Your task to perform on an android device: turn on data saver in the chrome app Image 0: 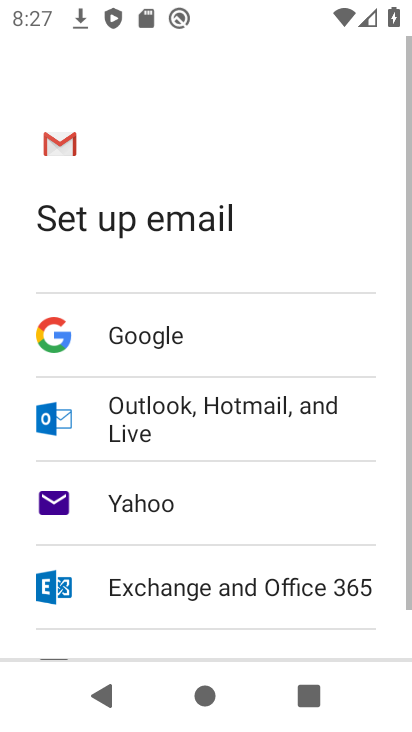
Step 0: press home button
Your task to perform on an android device: turn on data saver in the chrome app Image 1: 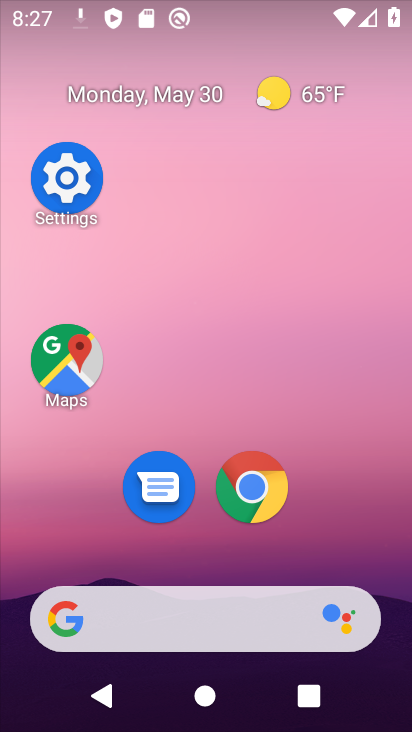
Step 1: click (60, 383)
Your task to perform on an android device: turn on data saver in the chrome app Image 2: 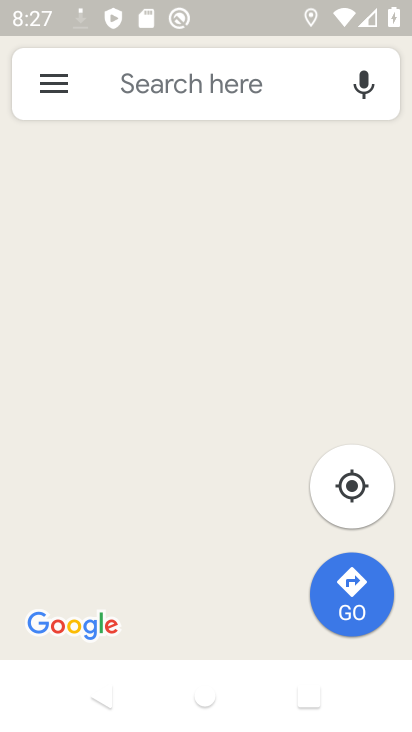
Step 2: click (277, 87)
Your task to perform on an android device: turn on data saver in the chrome app Image 3: 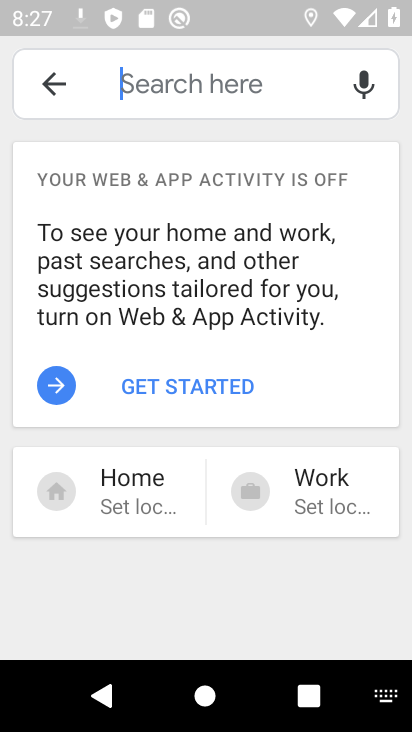
Step 3: click (160, 379)
Your task to perform on an android device: turn on data saver in the chrome app Image 4: 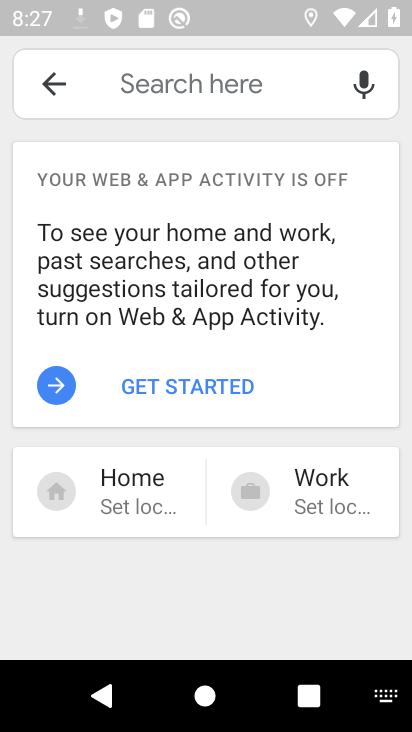
Step 4: click (215, 385)
Your task to perform on an android device: turn on data saver in the chrome app Image 5: 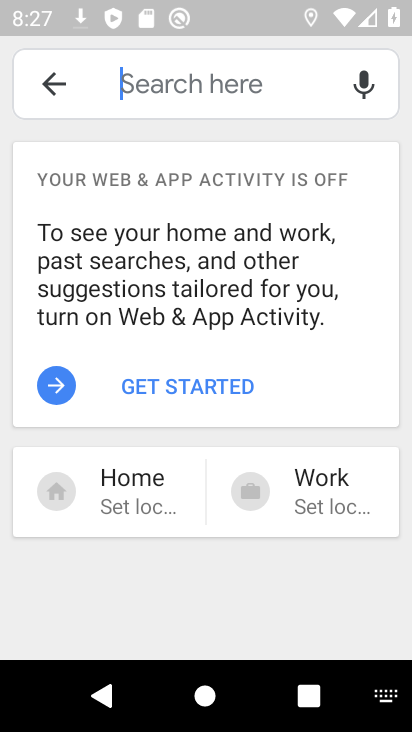
Step 5: press back button
Your task to perform on an android device: turn on data saver in the chrome app Image 6: 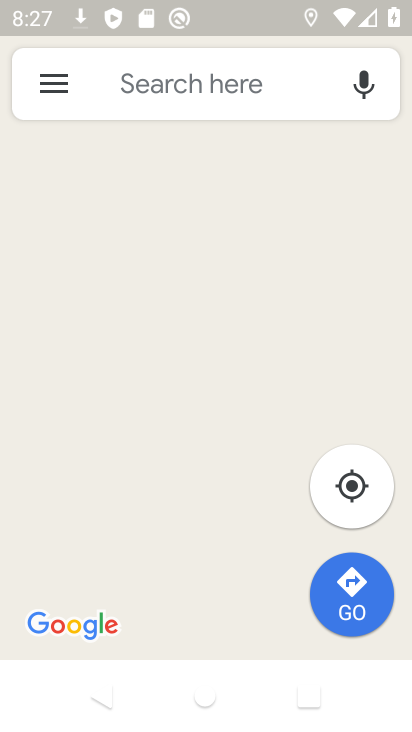
Step 6: press home button
Your task to perform on an android device: turn on data saver in the chrome app Image 7: 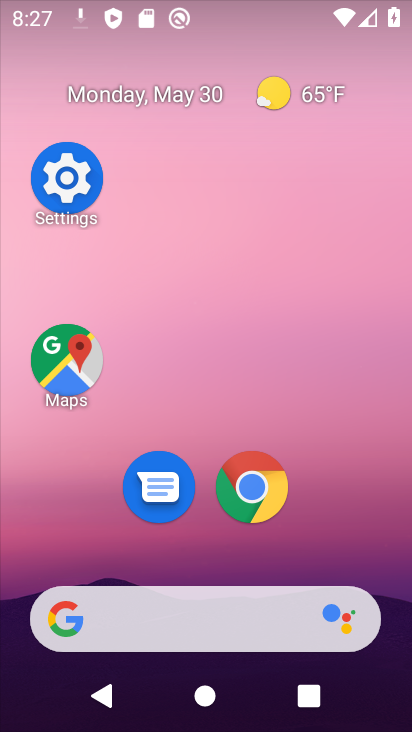
Step 7: click (267, 518)
Your task to perform on an android device: turn on data saver in the chrome app Image 8: 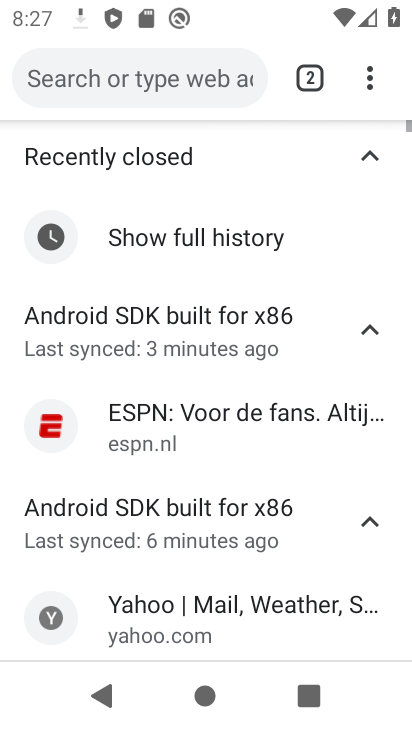
Step 8: click (367, 83)
Your task to perform on an android device: turn on data saver in the chrome app Image 9: 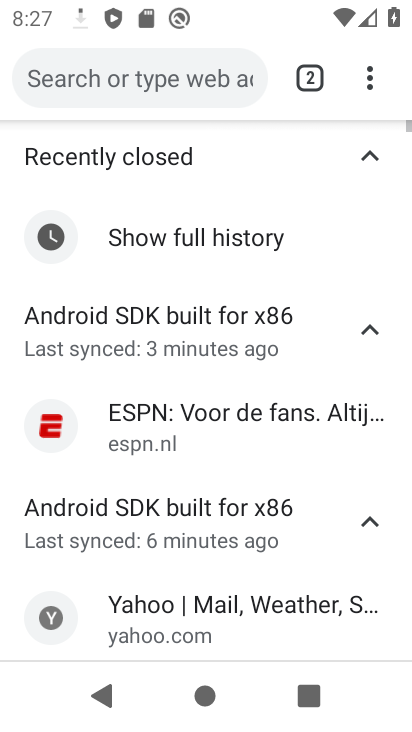
Step 9: click (363, 80)
Your task to perform on an android device: turn on data saver in the chrome app Image 10: 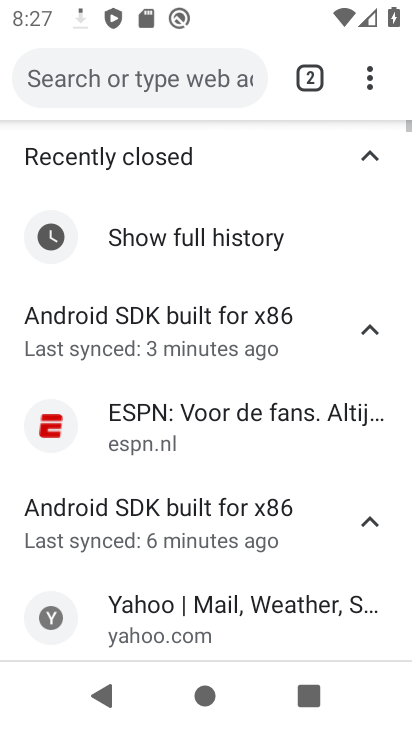
Step 10: click (367, 71)
Your task to perform on an android device: turn on data saver in the chrome app Image 11: 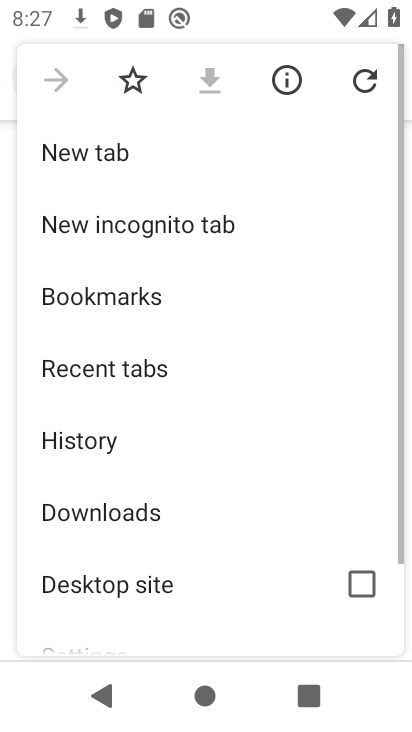
Step 11: drag from (231, 534) to (274, 75)
Your task to perform on an android device: turn on data saver in the chrome app Image 12: 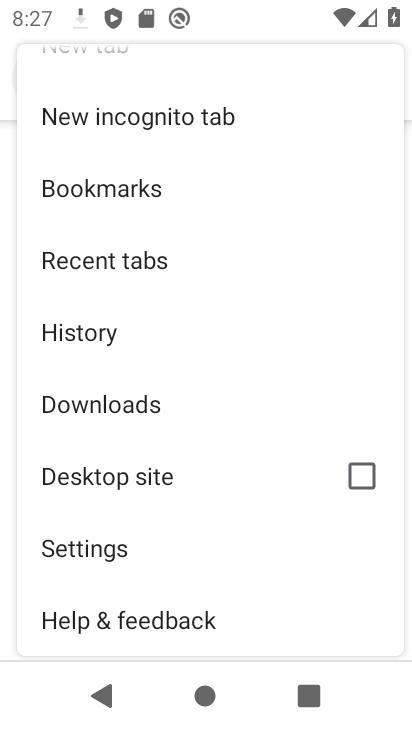
Step 12: click (124, 552)
Your task to perform on an android device: turn on data saver in the chrome app Image 13: 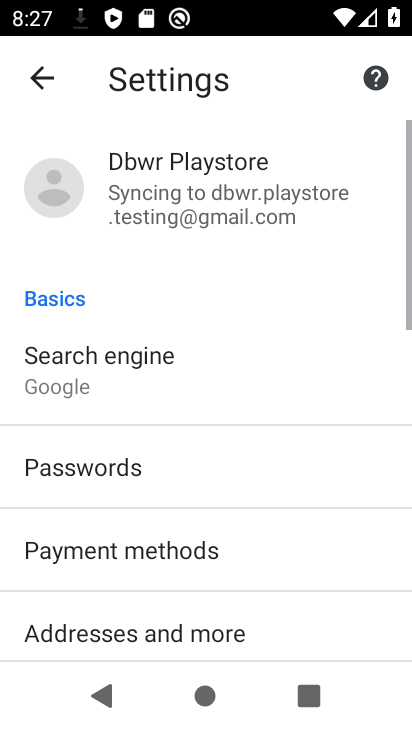
Step 13: drag from (124, 552) to (184, 293)
Your task to perform on an android device: turn on data saver in the chrome app Image 14: 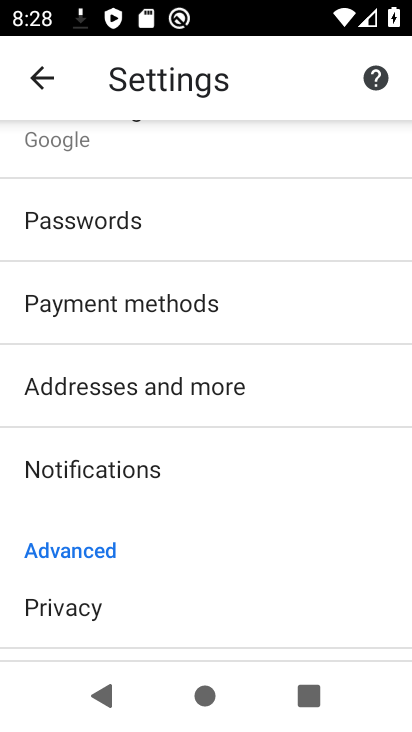
Step 14: drag from (178, 574) to (177, 183)
Your task to perform on an android device: turn on data saver in the chrome app Image 15: 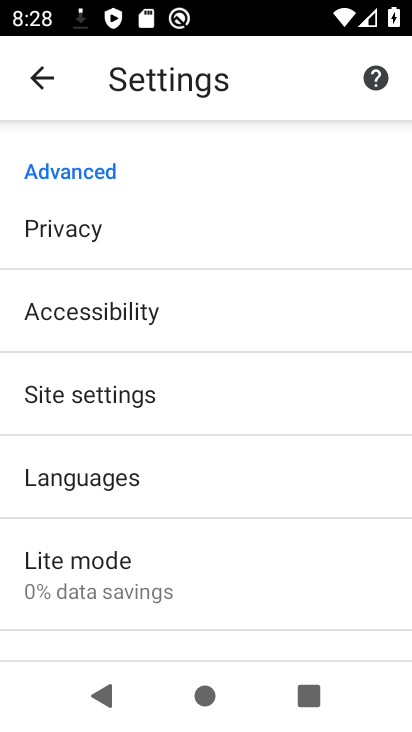
Step 15: drag from (164, 558) to (198, 225)
Your task to perform on an android device: turn on data saver in the chrome app Image 16: 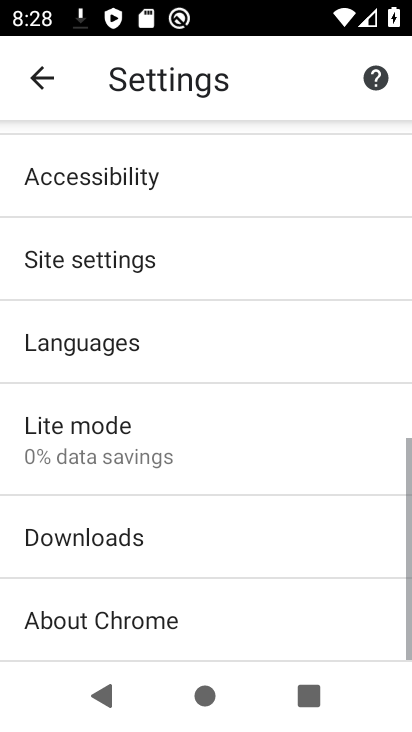
Step 16: click (175, 431)
Your task to perform on an android device: turn on data saver in the chrome app Image 17: 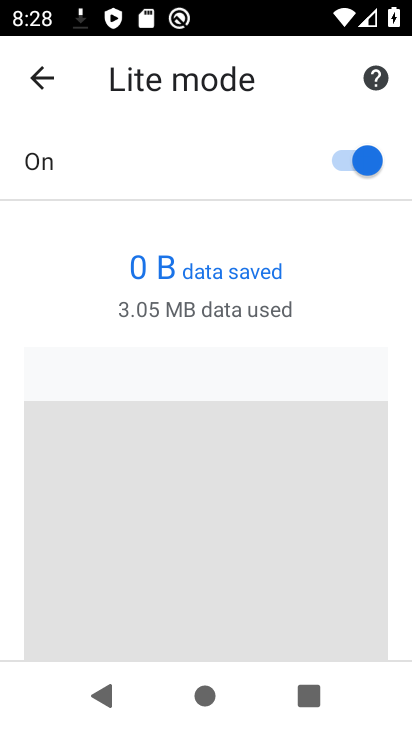
Step 17: task complete